Your task to perform on an android device: Go to internet settings Image 0: 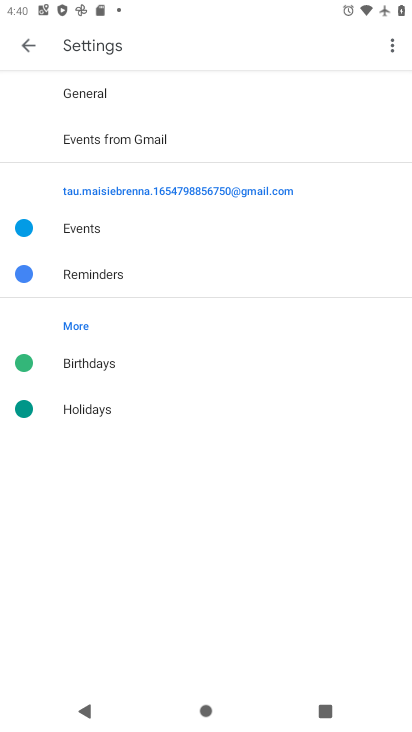
Step 0: press home button
Your task to perform on an android device: Go to internet settings Image 1: 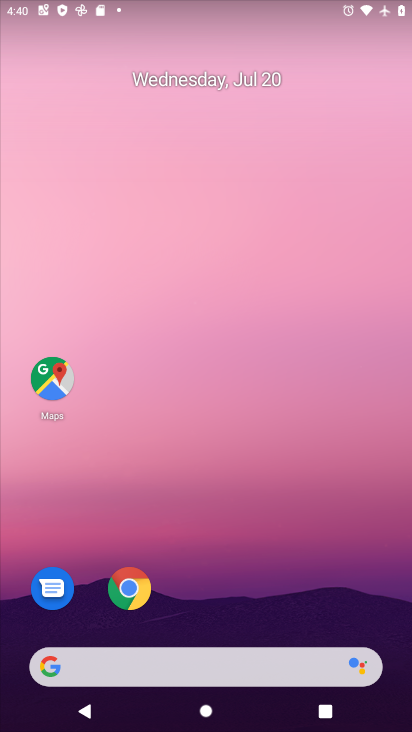
Step 1: drag from (293, 594) to (255, 95)
Your task to perform on an android device: Go to internet settings Image 2: 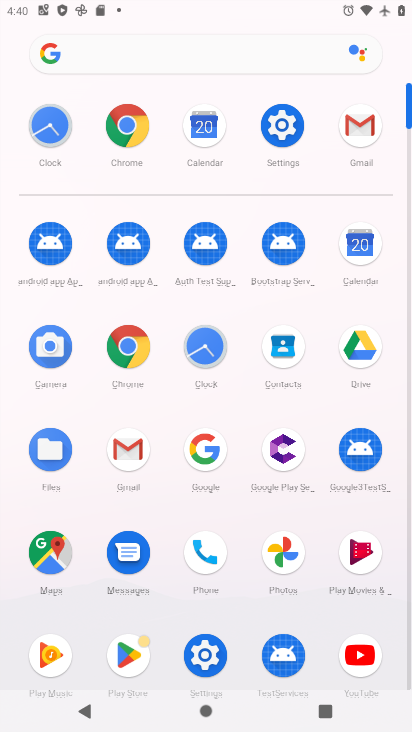
Step 2: click (270, 110)
Your task to perform on an android device: Go to internet settings Image 3: 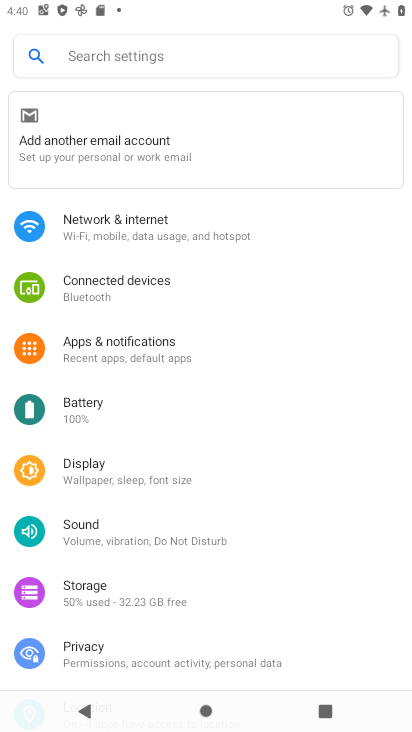
Step 3: click (168, 245)
Your task to perform on an android device: Go to internet settings Image 4: 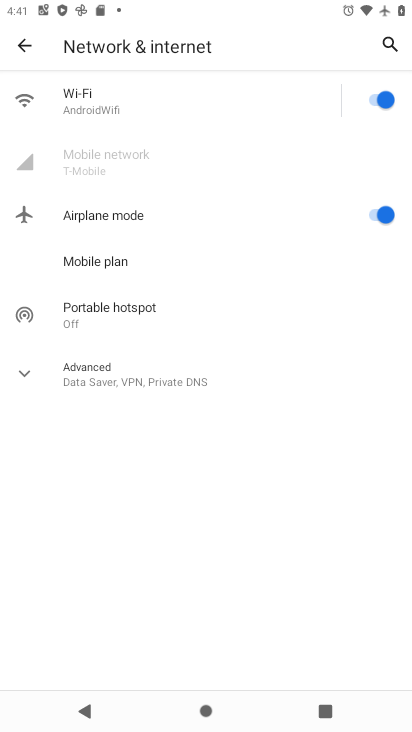
Step 4: click (123, 357)
Your task to perform on an android device: Go to internet settings Image 5: 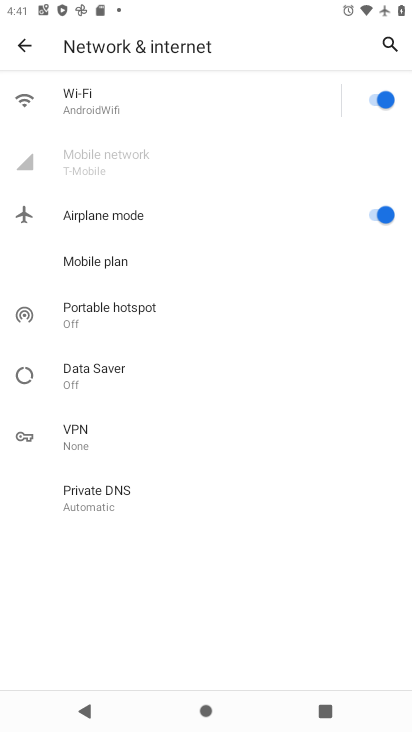
Step 5: task complete